Your task to perform on an android device: What is the capital of India? Image 0: 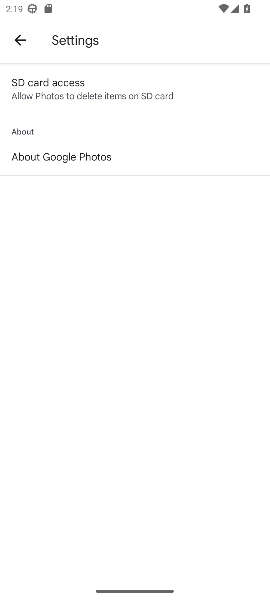
Step 0: press home button
Your task to perform on an android device: What is the capital of India? Image 1: 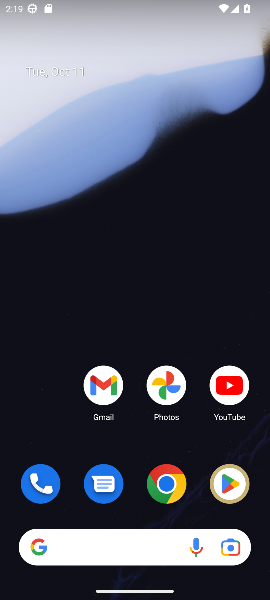
Step 1: click (120, 551)
Your task to perform on an android device: What is the capital of India? Image 2: 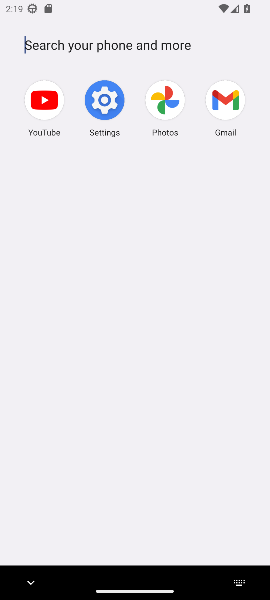
Step 2: type "What is the capital of India"
Your task to perform on an android device: What is the capital of India? Image 3: 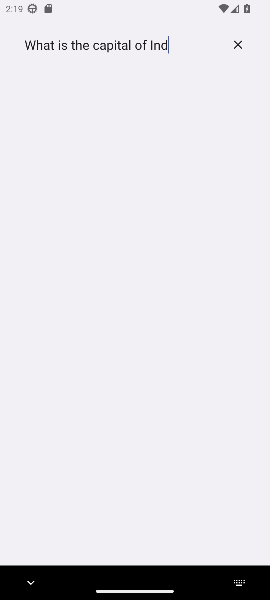
Step 3: press enter
Your task to perform on an android device: What is the capital of India? Image 4: 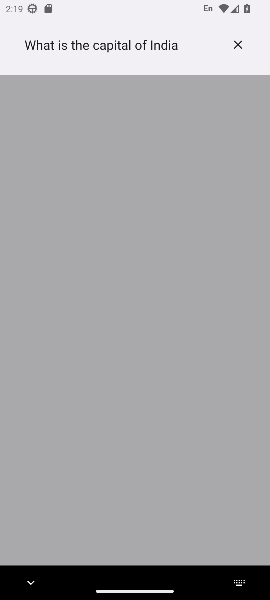
Step 4: press enter
Your task to perform on an android device: What is the capital of India? Image 5: 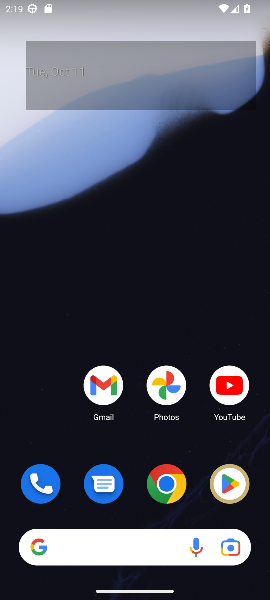
Step 5: click (125, 545)
Your task to perform on an android device: What is the capital of India? Image 6: 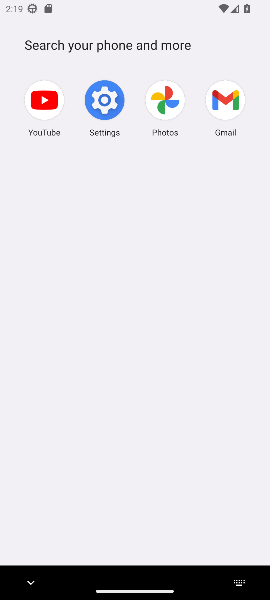
Step 6: type "What is the capital of India"
Your task to perform on an android device: What is the capital of India? Image 7: 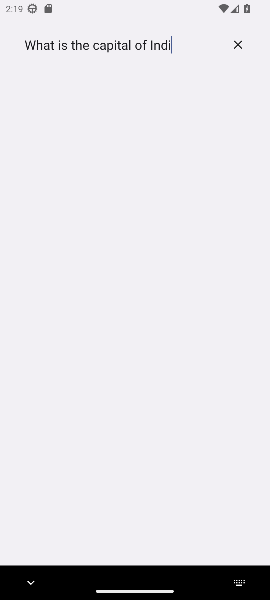
Step 7: press enter
Your task to perform on an android device: What is the capital of India? Image 8: 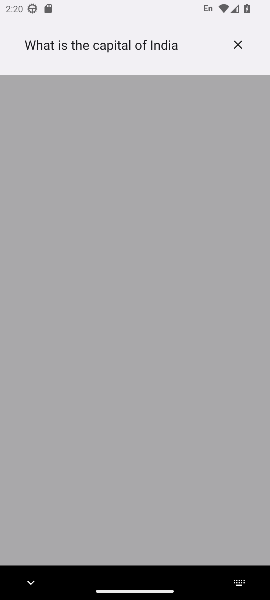
Step 8: press enter
Your task to perform on an android device: What is the capital of India? Image 9: 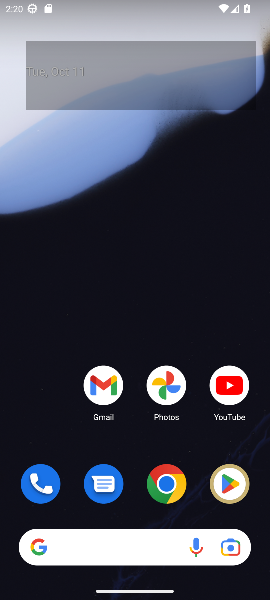
Step 9: drag from (54, 421) to (56, 30)
Your task to perform on an android device: What is the capital of India? Image 10: 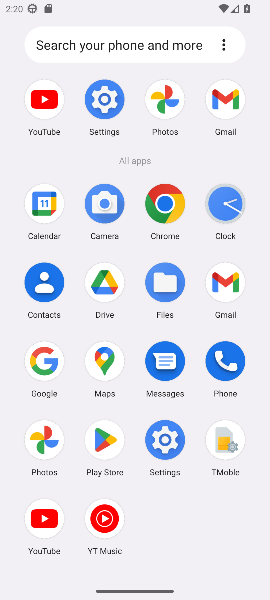
Step 10: click (42, 362)
Your task to perform on an android device: What is the capital of India? Image 11: 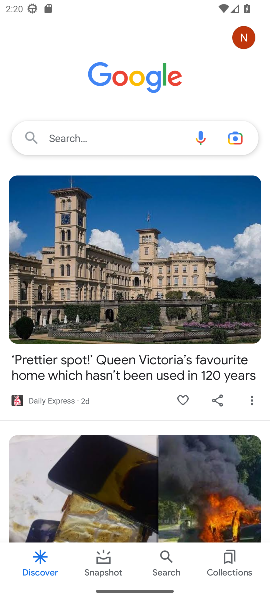
Step 11: click (143, 137)
Your task to perform on an android device: What is the capital of India? Image 12: 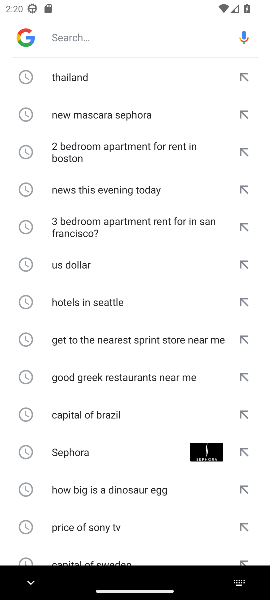
Step 12: type "What is the capital of India"
Your task to perform on an android device: What is the capital of India? Image 13: 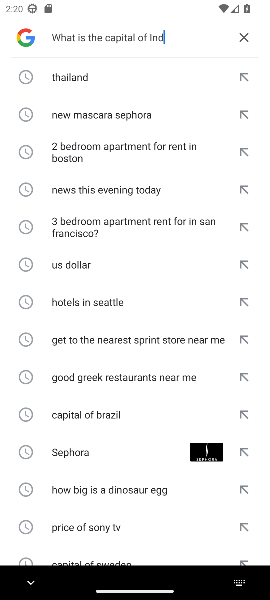
Step 13: press enter
Your task to perform on an android device: What is the capital of India? Image 14: 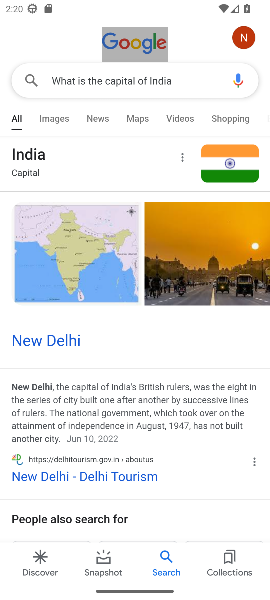
Step 14: task complete